Your task to perform on an android device: Open sound settings Image 0: 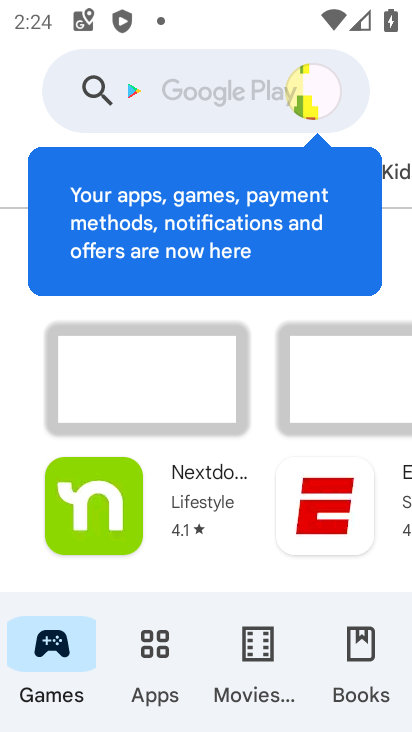
Step 0: press home button
Your task to perform on an android device: Open sound settings Image 1: 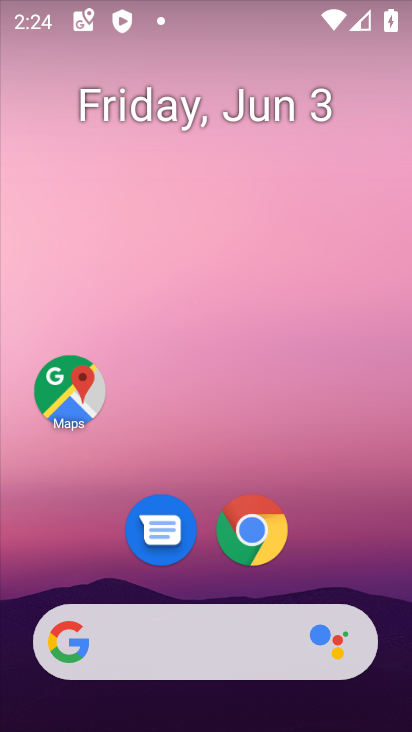
Step 1: drag from (330, 552) to (237, 221)
Your task to perform on an android device: Open sound settings Image 2: 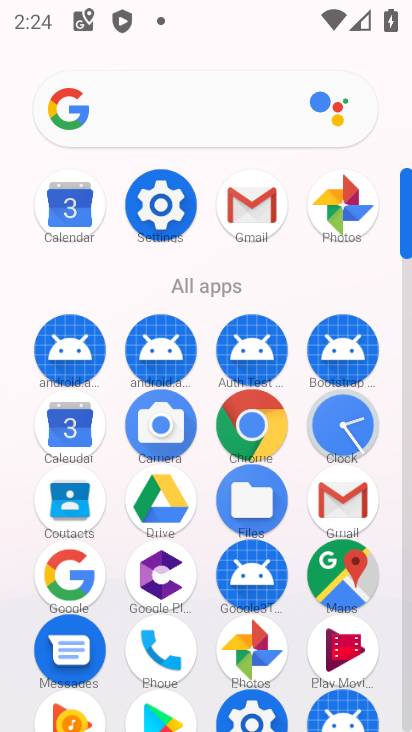
Step 2: click (162, 197)
Your task to perform on an android device: Open sound settings Image 3: 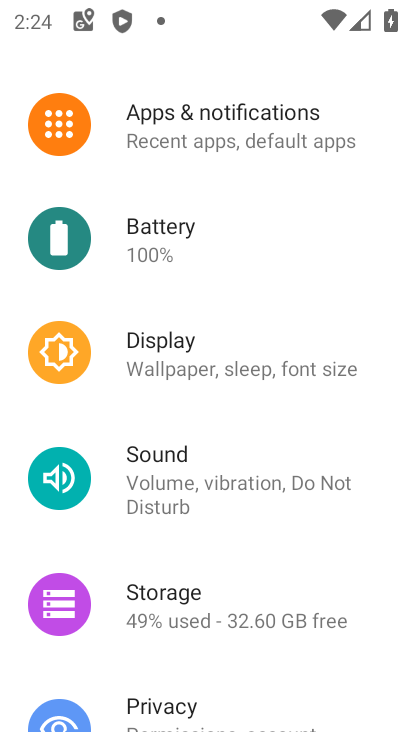
Step 3: click (149, 442)
Your task to perform on an android device: Open sound settings Image 4: 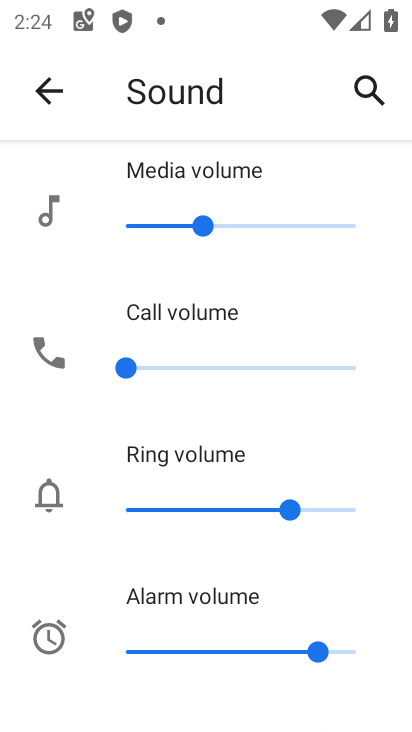
Step 4: task complete